Your task to perform on an android device: turn on data saver in the chrome app Image 0: 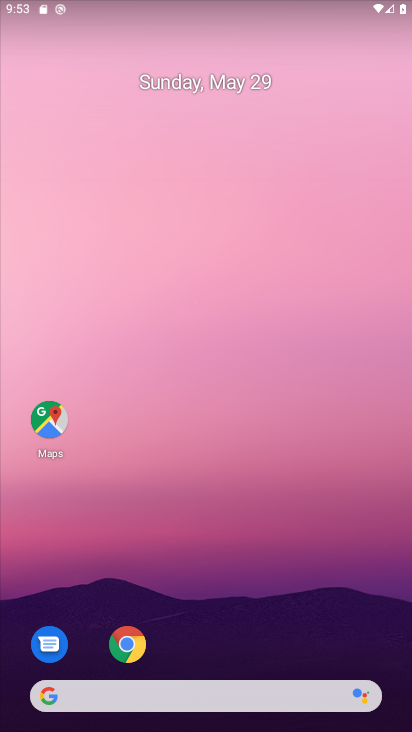
Step 0: click (138, 632)
Your task to perform on an android device: turn on data saver in the chrome app Image 1: 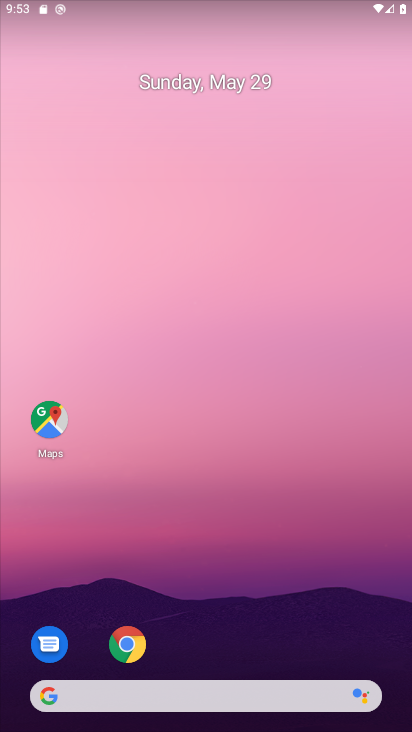
Step 1: click (131, 653)
Your task to perform on an android device: turn on data saver in the chrome app Image 2: 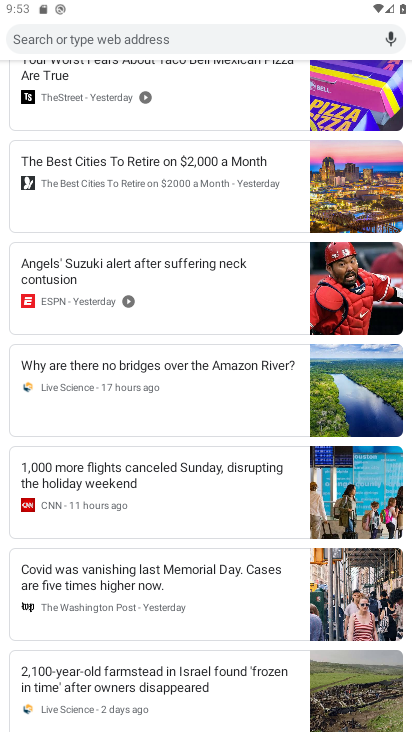
Step 2: drag from (252, 136) to (294, 593)
Your task to perform on an android device: turn on data saver in the chrome app Image 3: 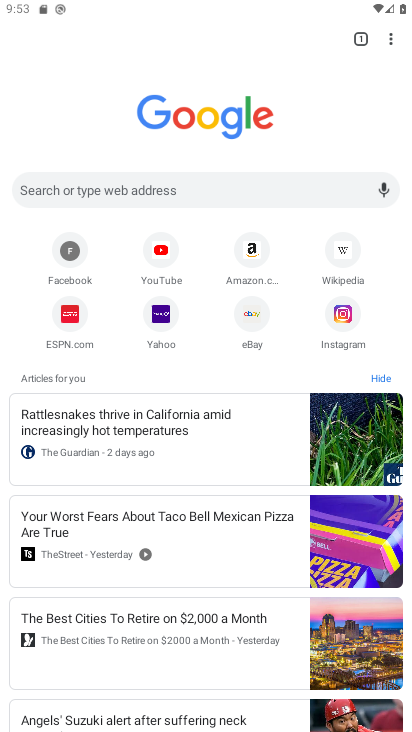
Step 3: click (388, 33)
Your task to perform on an android device: turn on data saver in the chrome app Image 4: 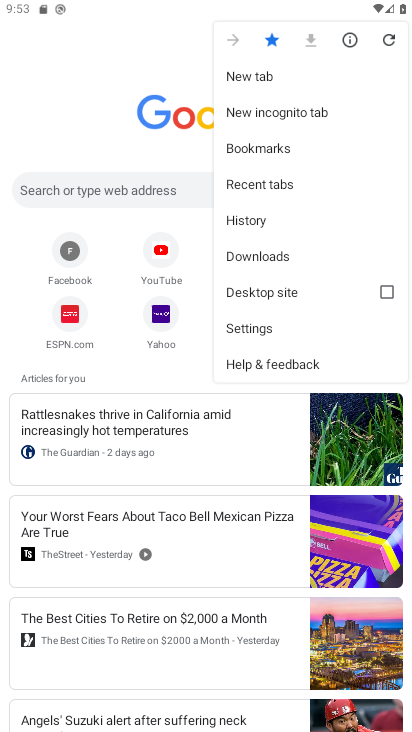
Step 4: click (263, 330)
Your task to perform on an android device: turn on data saver in the chrome app Image 5: 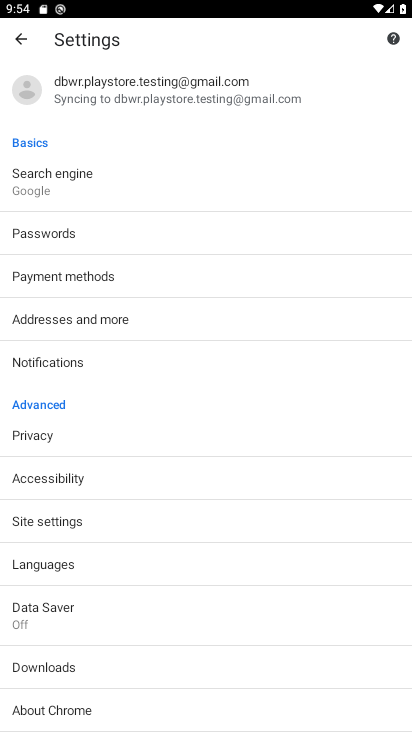
Step 5: click (57, 622)
Your task to perform on an android device: turn on data saver in the chrome app Image 6: 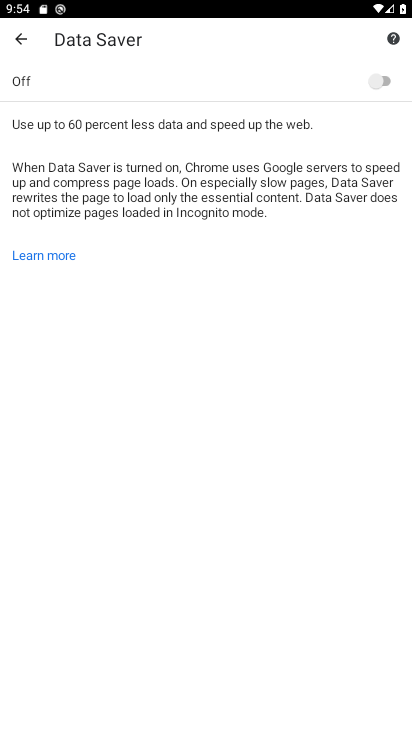
Step 6: click (380, 83)
Your task to perform on an android device: turn on data saver in the chrome app Image 7: 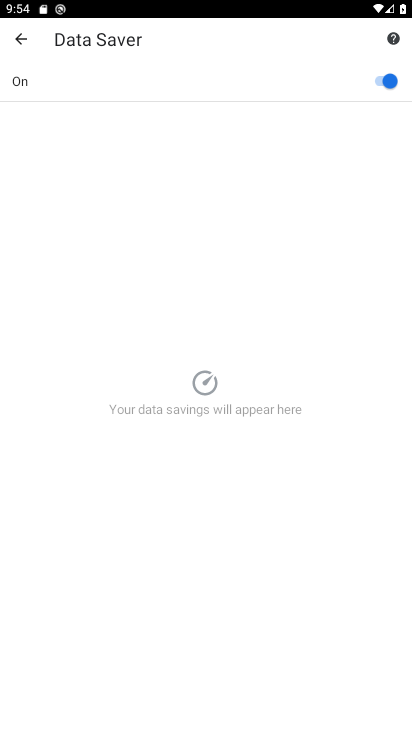
Step 7: task complete